Your task to perform on an android device: Open Google Chrome and open the bookmarks view Image 0: 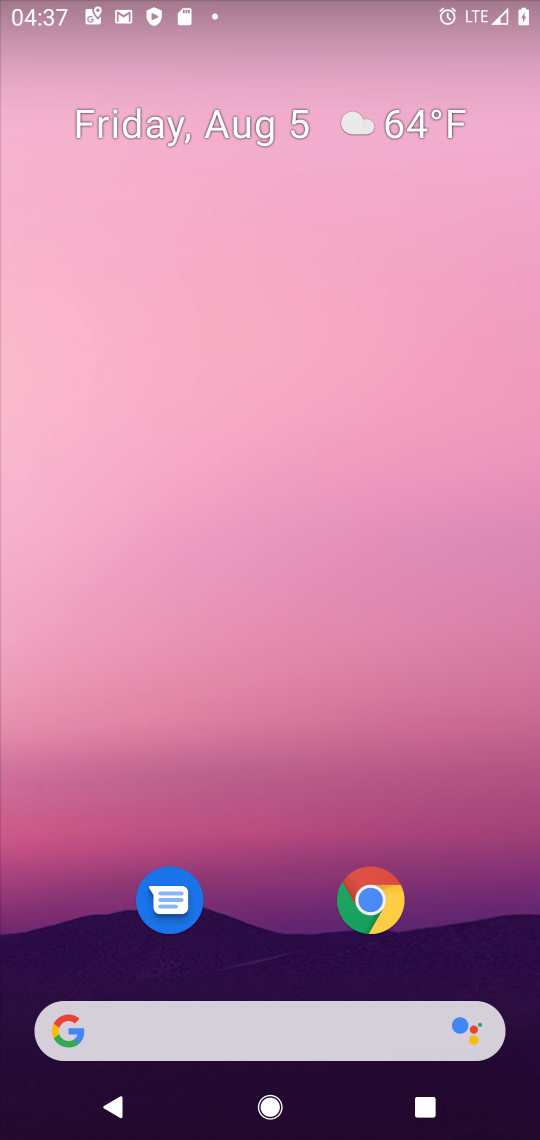
Step 0: click (365, 893)
Your task to perform on an android device: Open Google Chrome and open the bookmarks view Image 1: 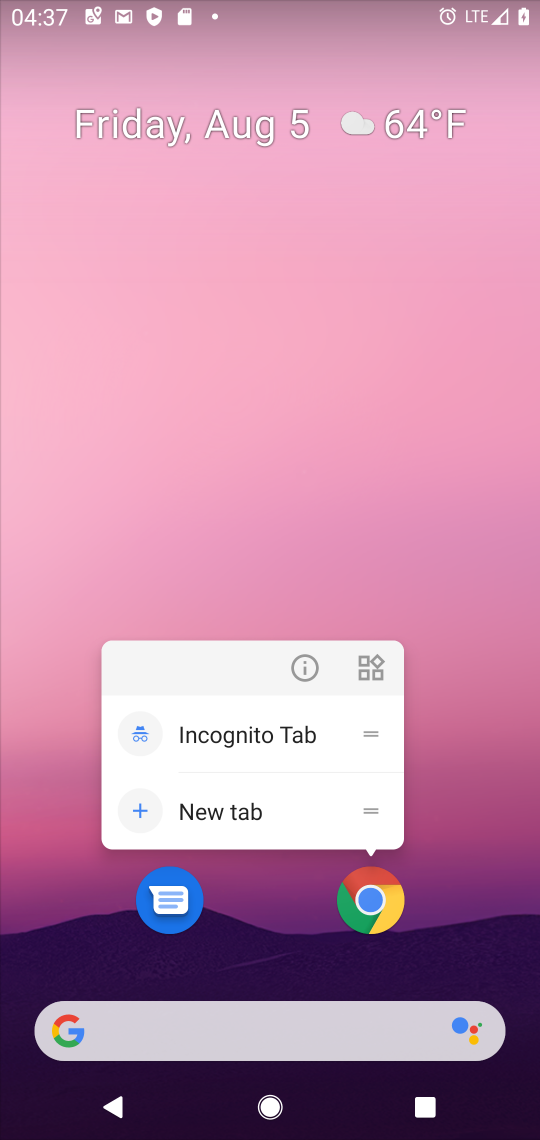
Step 1: click (365, 893)
Your task to perform on an android device: Open Google Chrome and open the bookmarks view Image 2: 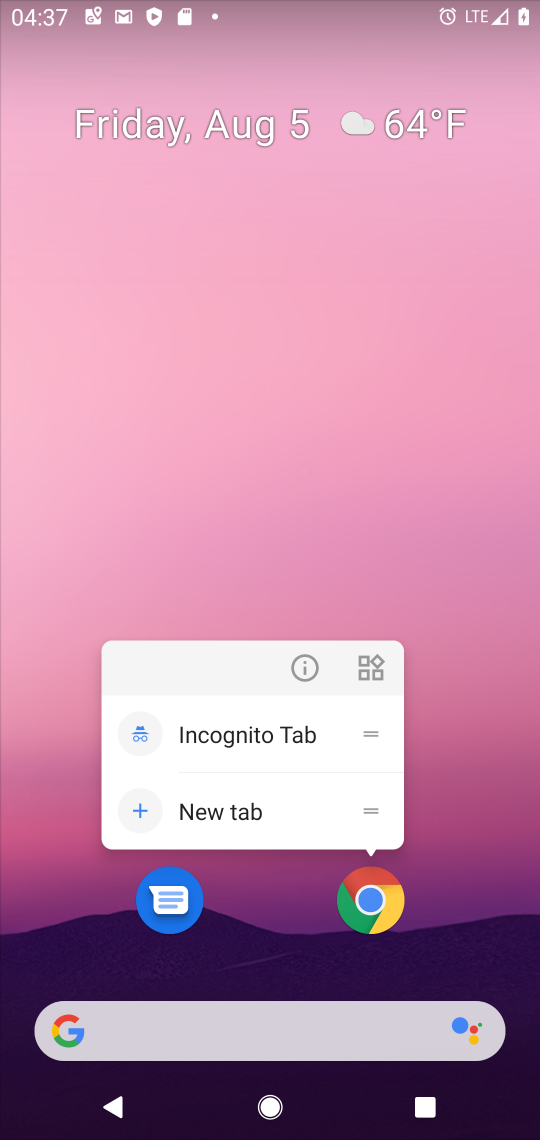
Step 2: click (365, 893)
Your task to perform on an android device: Open Google Chrome and open the bookmarks view Image 3: 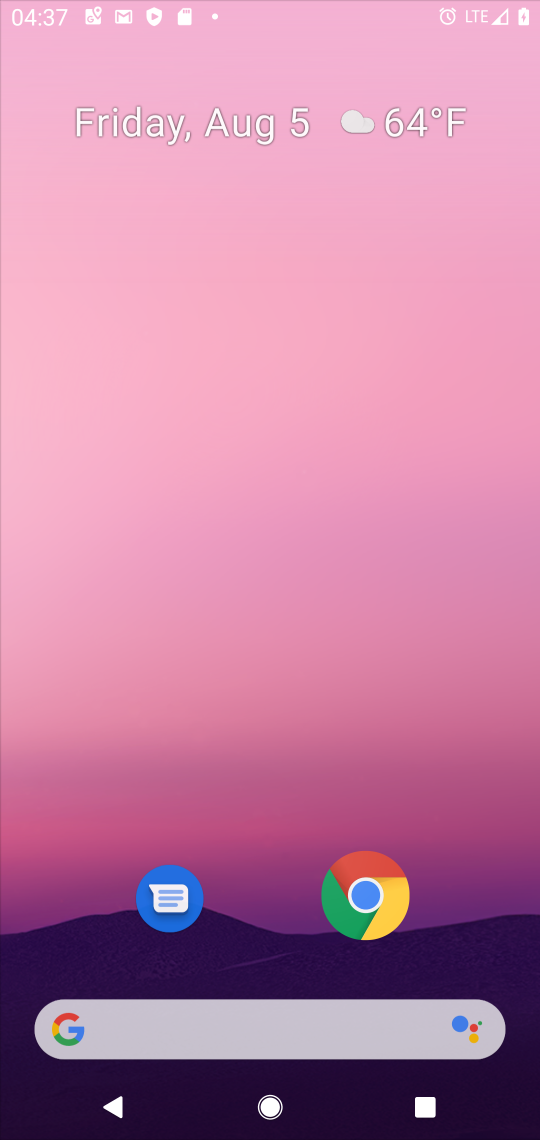
Step 3: click (379, 895)
Your task to perform on an android device: Open Google Chrome and open the bookmarks view Image 4: 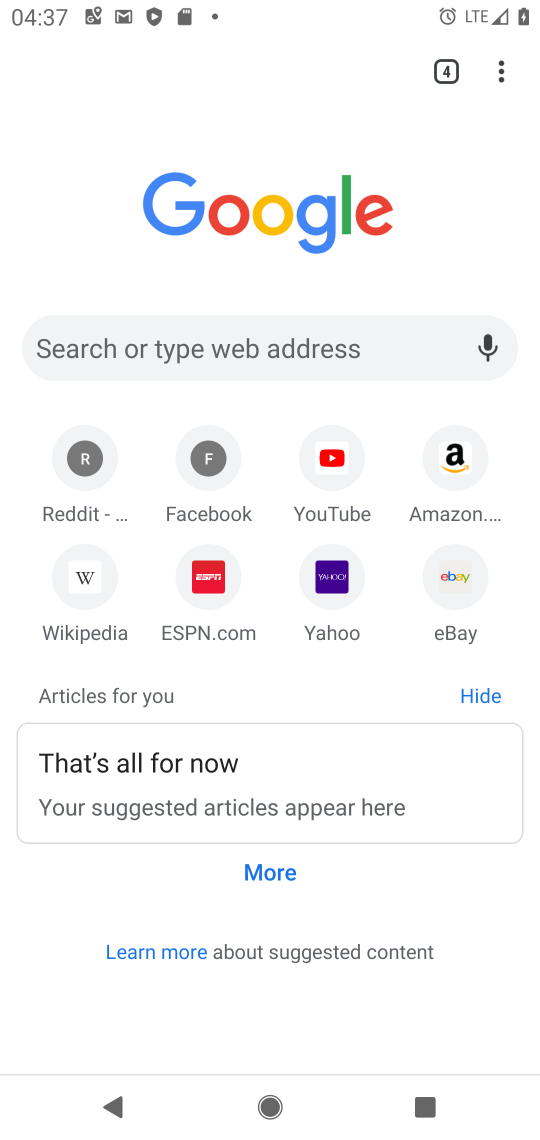
Step 4: task complete